Your task to perform on an android device: find snoozed emails in the gmail app Image 0: 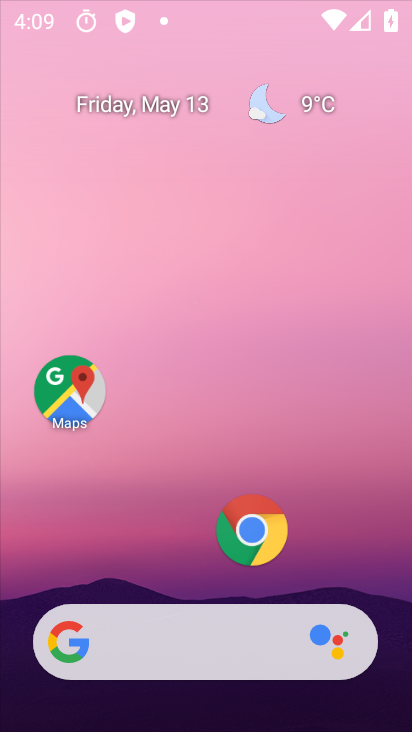
Step 0: press home button
Your task to perform on an android device: find snoozed emails in the gmail app Image 1: 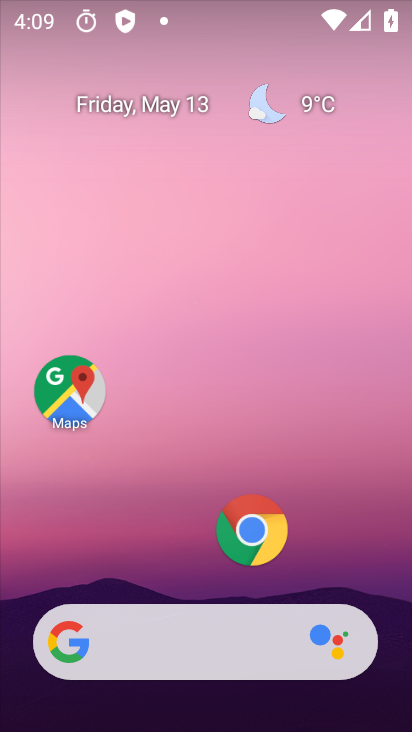
Step 1: drag from (209, 571) to (278, 102)
Your task to perform on an android device: find snoozed emails in the gmail app Image 2: 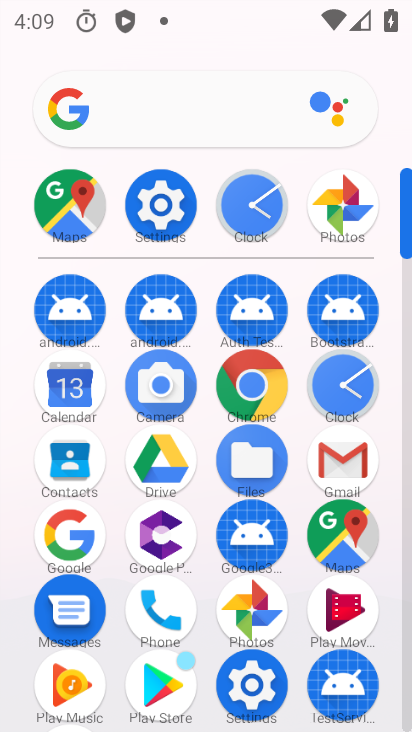
Step 2: click (339, 452)
Your task to perform on an android device: find snoozed emails in the gmail app Image 3: 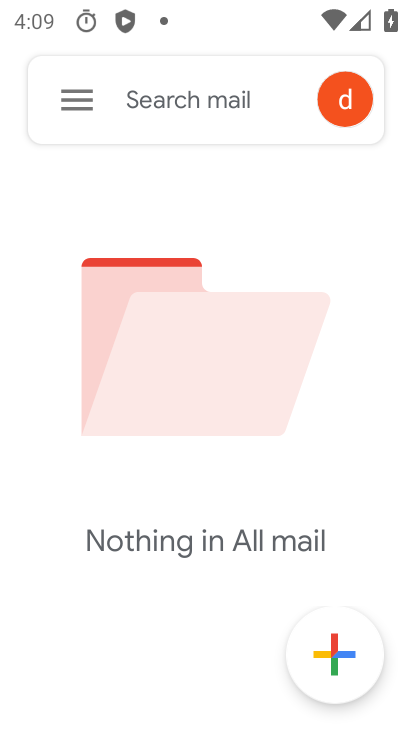
Step 3: click (68, 101)
Your task to perform on an android device: find snoozed emails in the gmail app Image 4: 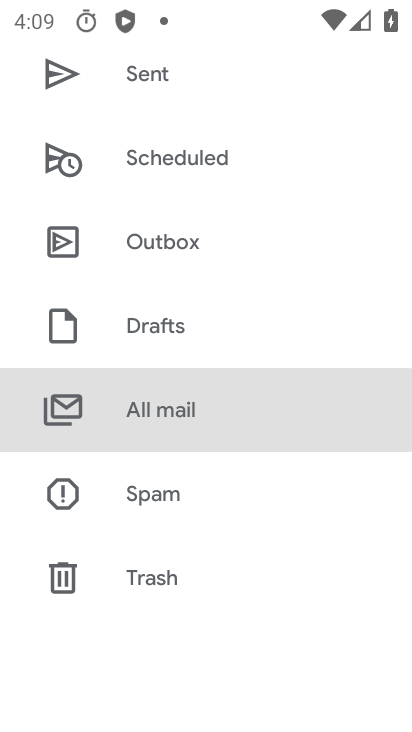
Step 4: drag from (175, 128) to (175, 597)
Your task to perform on an android device: find snoozed emails in the gmail app Image 5: 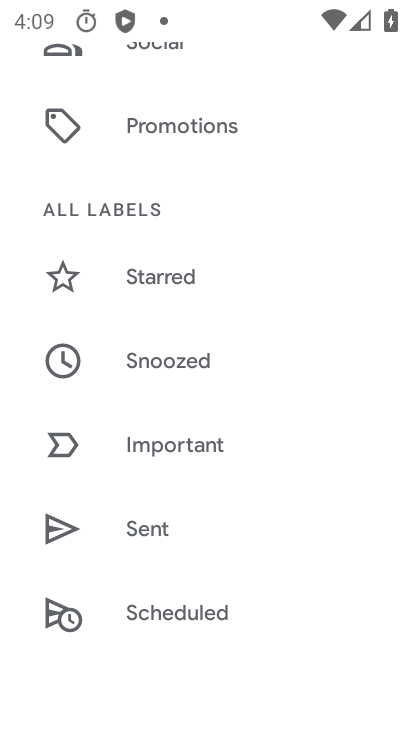
Step 5: click (114, 334)
Your task to perform on an android device: find snoozed emails in the gmail app Image 6: 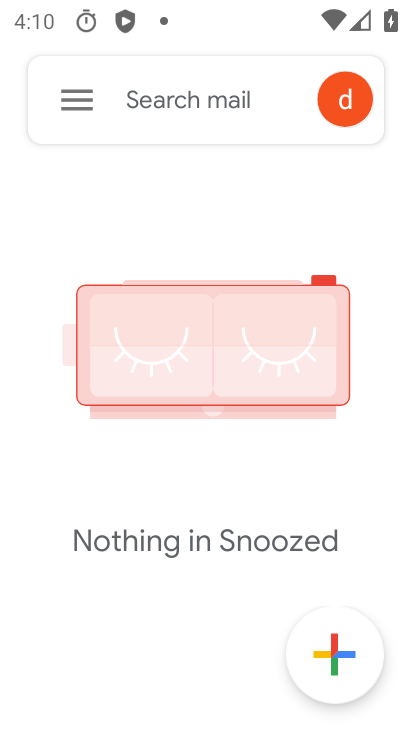
Step 6: task complete